Your task to perform on an android device: change notification settings in the gmail app Image 0: 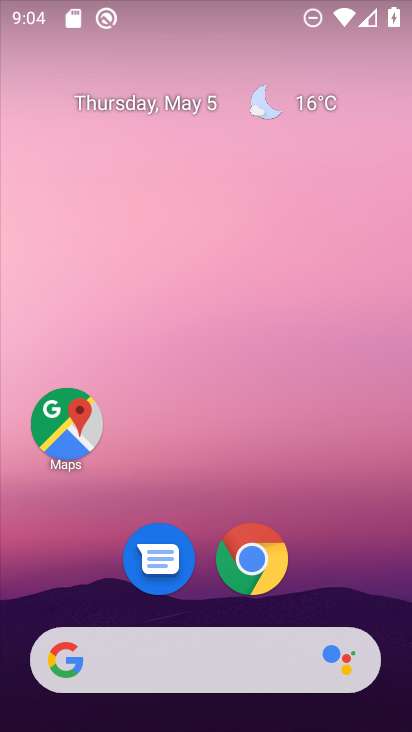
Step 0: drag from (364, 592) to (380, 20)
Your task to perform on an android device: change notification settings in the gmail app Image 1: 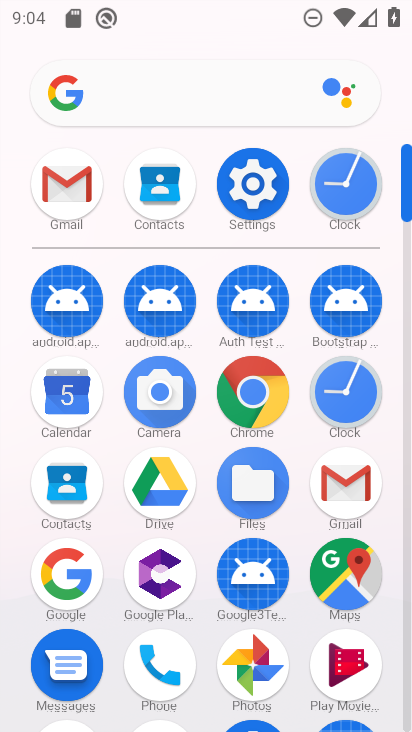
Step 1: click (59, 200)
Your task to perform on an android device: change notification settings in the gmail app Image 2: 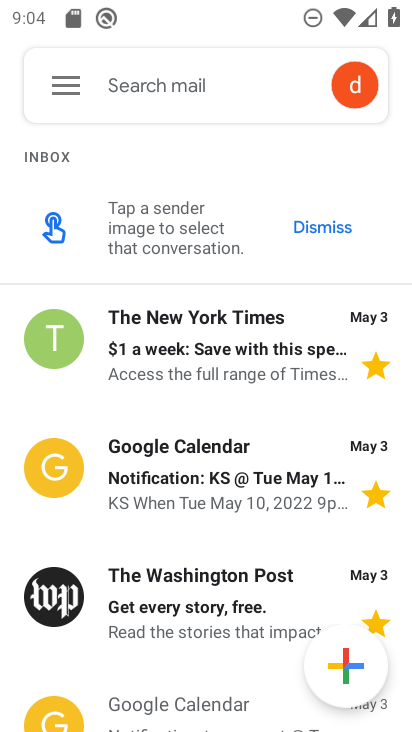
Step 2: click (67, 89)
Your task to perform on an android device: change notification settings in the gmail app Image 3: 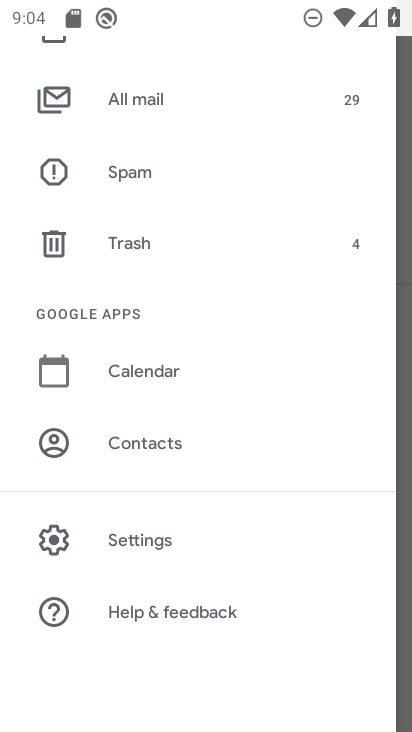
Step 3: click (163, 542)
Your task to perform on an android device: change notification settings in the gmail app Image 4: 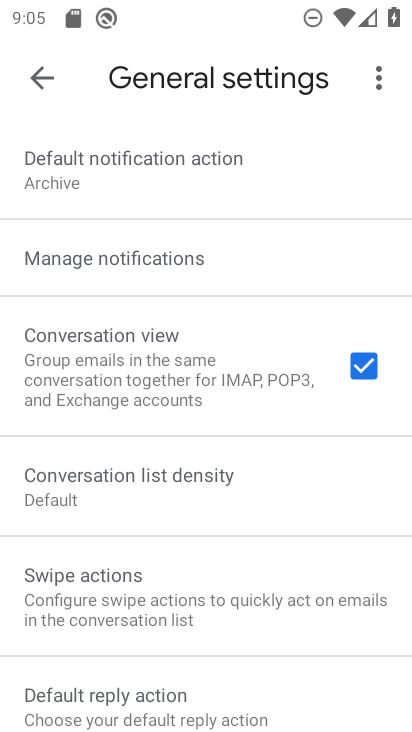
Step 4: click (86, 264)
Your task to perform on an android device: change notification settings in the gmail app Image 5: 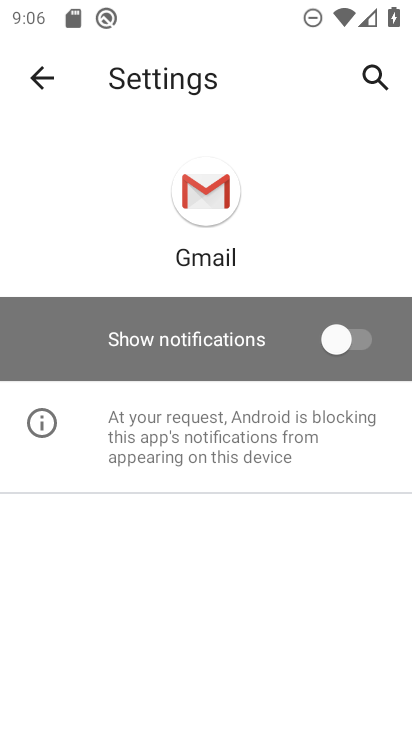
Step 5: click (347, 338)
Your task to perform on an android device: change notification settings in the gmail app Image 6: 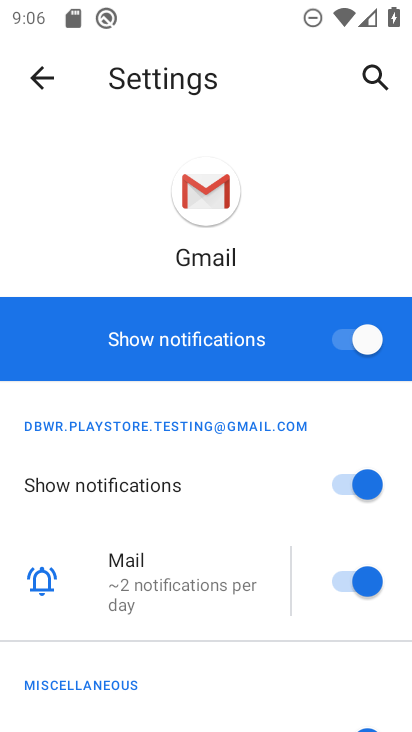
Step 6: task complete